Your task to perform on an android device: toggle sleep mode Image 0: 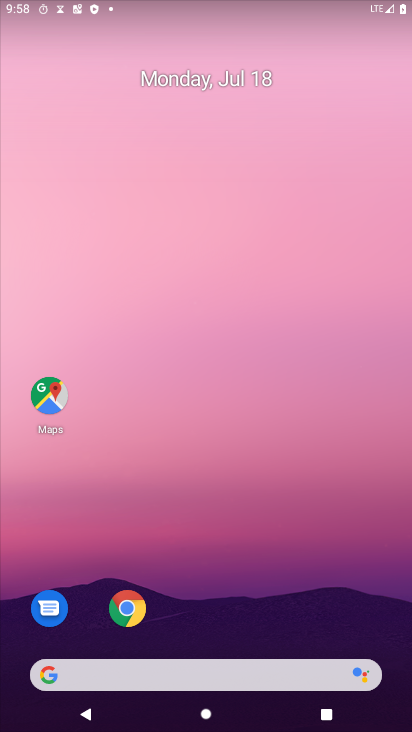
Step 0: drag from (235, 624) to (223, 6)
Your task to perform on an android device: toggle sleep mode Image 1: 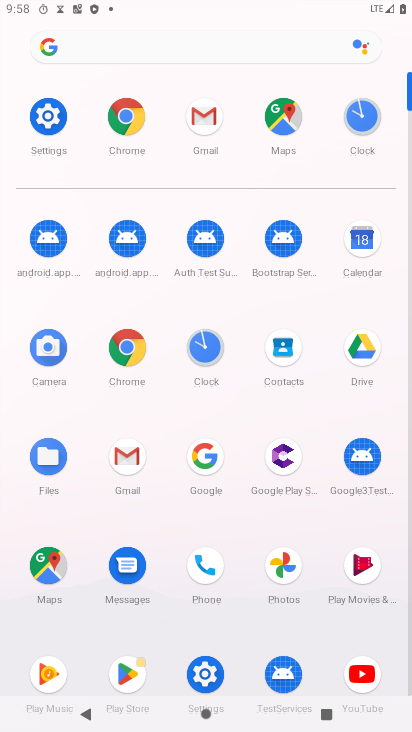
Step 1: task complete